Your task to perform on an android device: remove spam from my inbox in the gmail app Image 0: 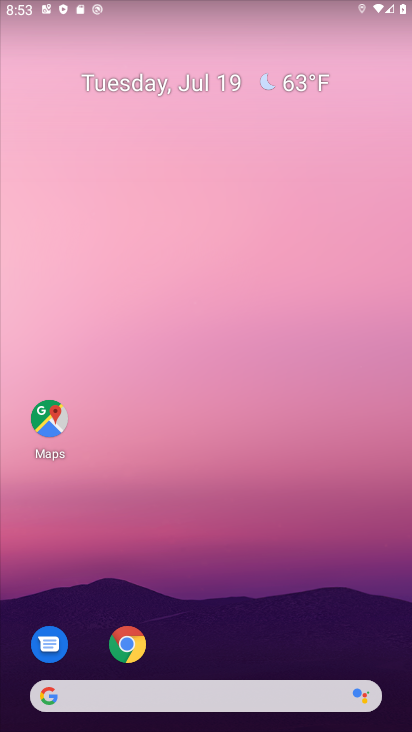
Step 0: drag from (254, 532) to (224, 292)
Your task to perform on an android device: remove spam from my inbox in the gmail app Image 1: 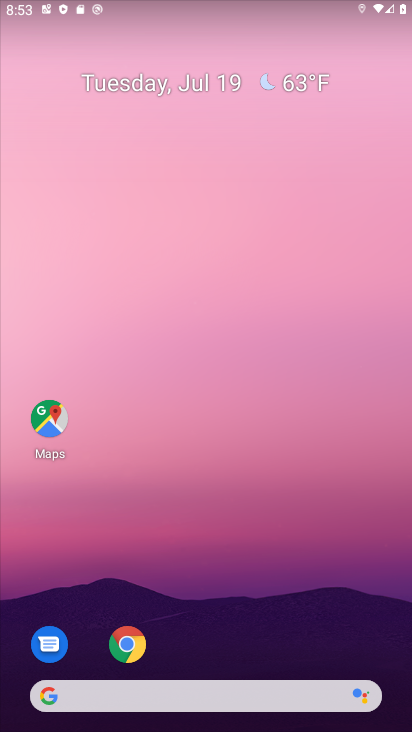
Step 1: drag from (178, 653) to (180, 163)
Your task to perform on an android device: remove spam from my inbox in the gmail app Image 2: 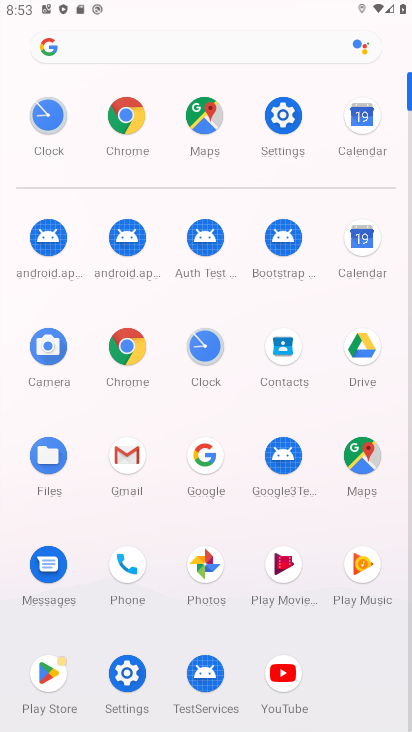
Step 2: click (133, 446)
Your task to perform on an android device: remove spam from my inbox in the gmail app Image 3: 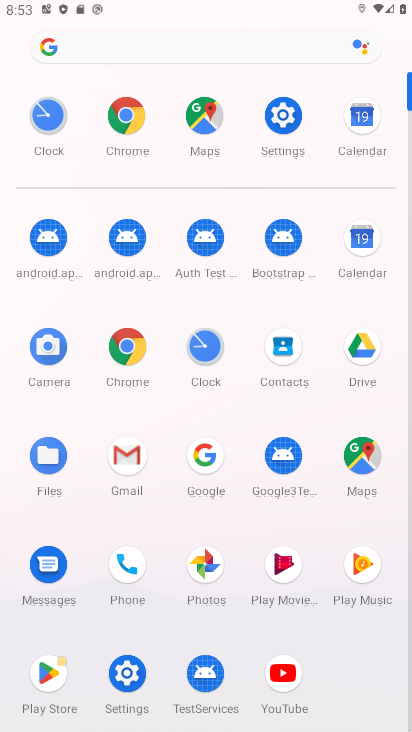
Step 3: click (131, 447)
Your task to perform on an android device: remove spam from my inbox in the gmail app Image 4: 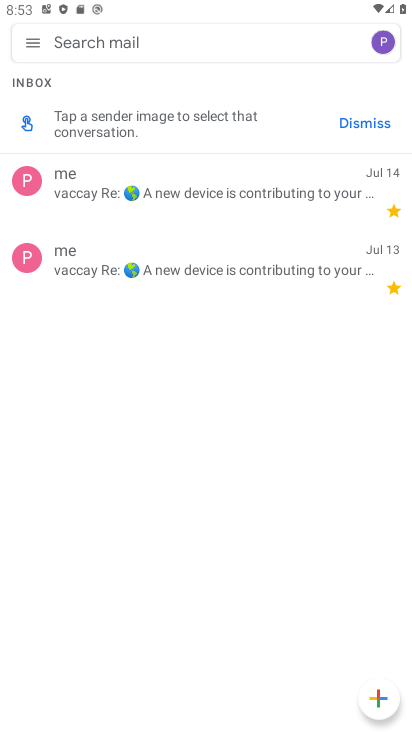
Step 4: click (34, 48)
Your task to perform on an android device: remove spam from my inbox in the gmail app Image 5: 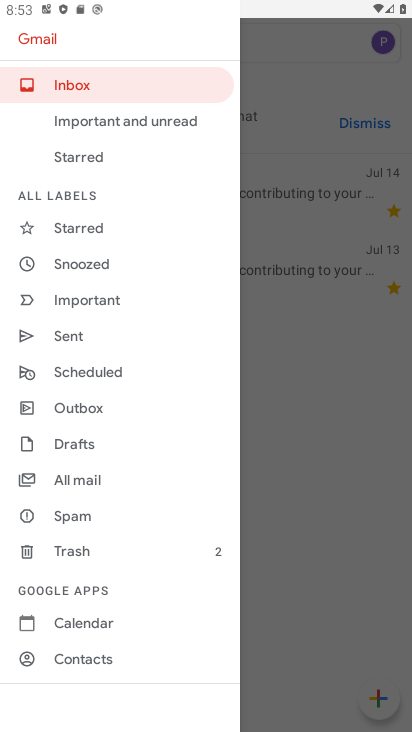
Step 5: click (72, 503)
Your task to perform on an android device: remove spam from my inbox in the gmail app Image 6: 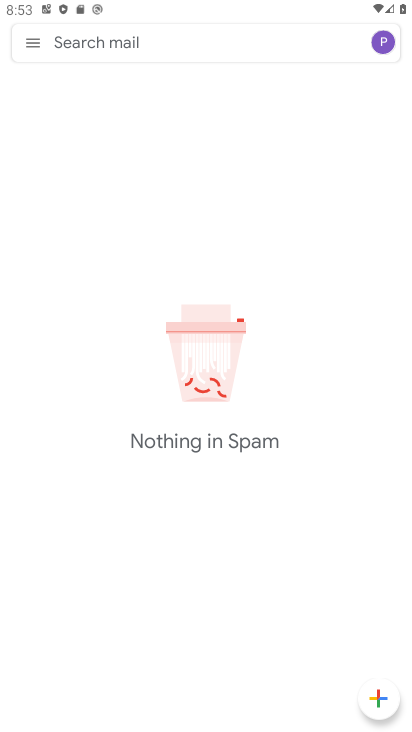
Step 6: task complete